Your task to perform on an android device: change your default location settings in chrome Image 0: 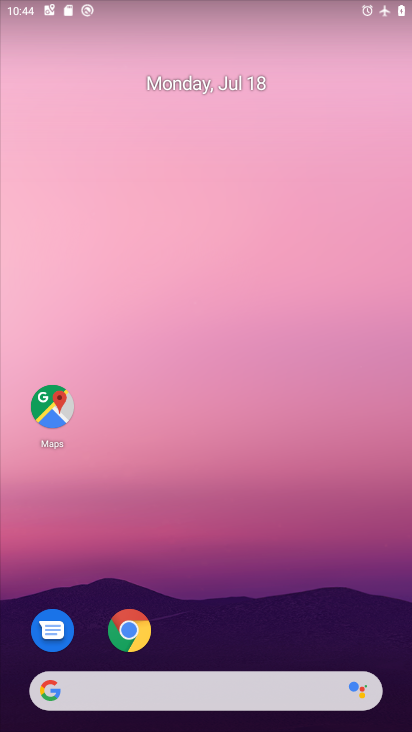
Step 0: drag from (176, 645) to (156, 189)
Your task to perform on an android device: change your default location settings in chrome Image 1: 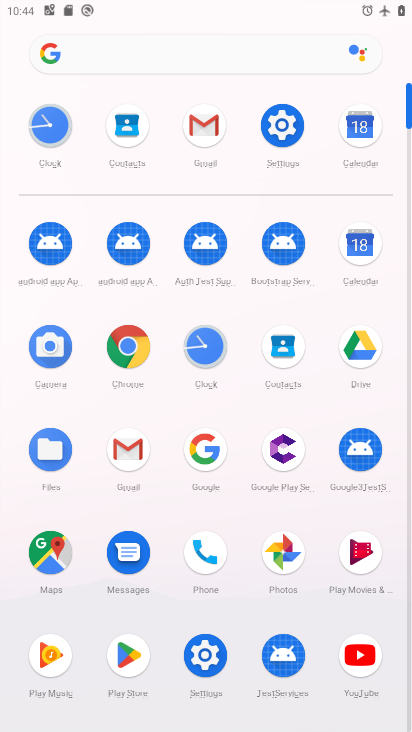
Step 1: click (118, 346)
Your task to perform on an android device: change your default location settings in chrome Image 2: 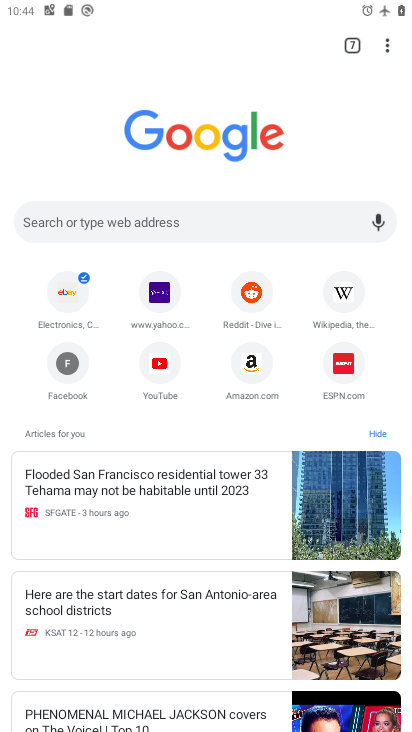
Step 2: click (392, 51)
Your task to perform on an android device: change your default location settings in chrome Image 3: 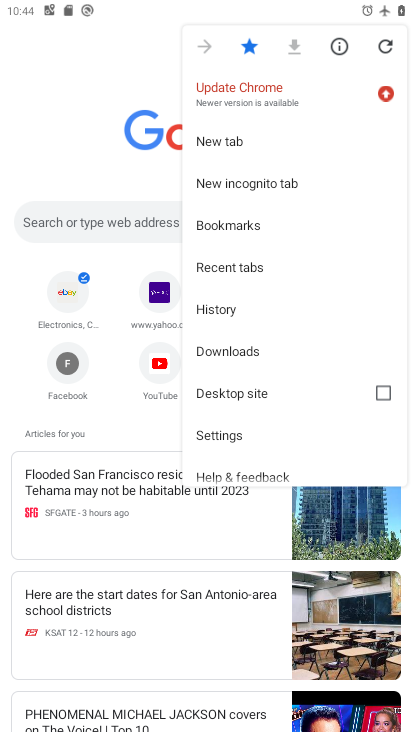
Step 3: click (243, 430)
Your task to perform on an android device: change your default location settings in chrome Image 4: 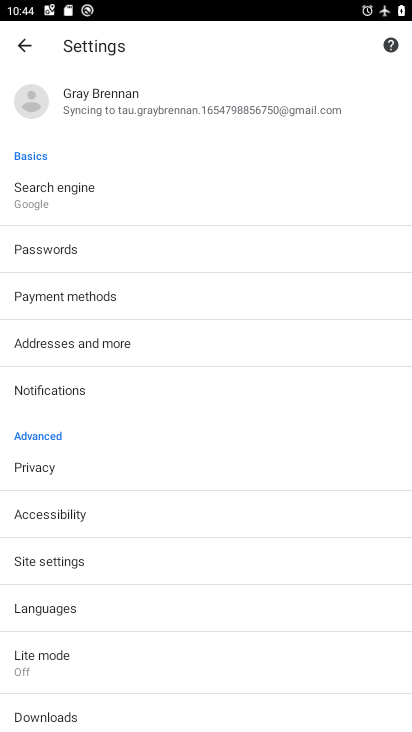
Step 4: click (75, 563)
Your task to perform on an android device: change your default location settings in chrome Image 5: 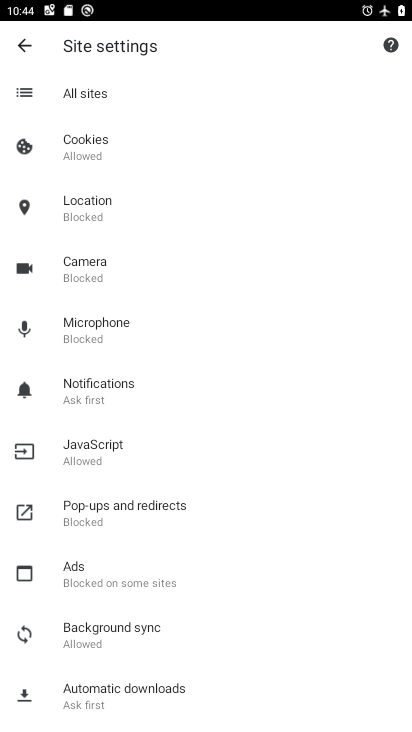
Step 5: click (136, 200)
Your task to perform on an android device: change your default location settings in chrome Image 6: 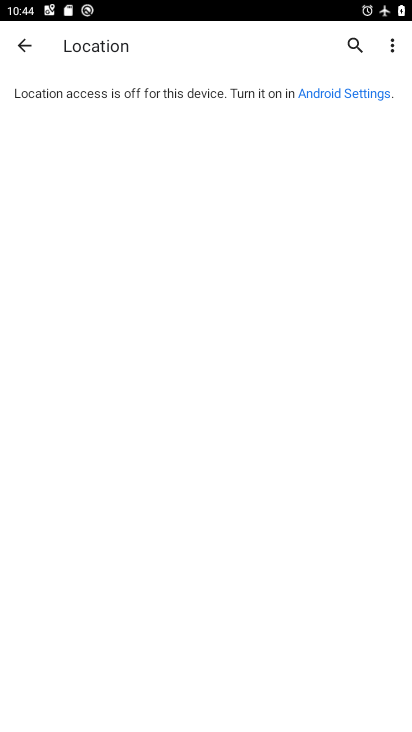
Step 6: click (338, 99)
Your task to perform on an android device: change your default location settings in chrome Image 7: 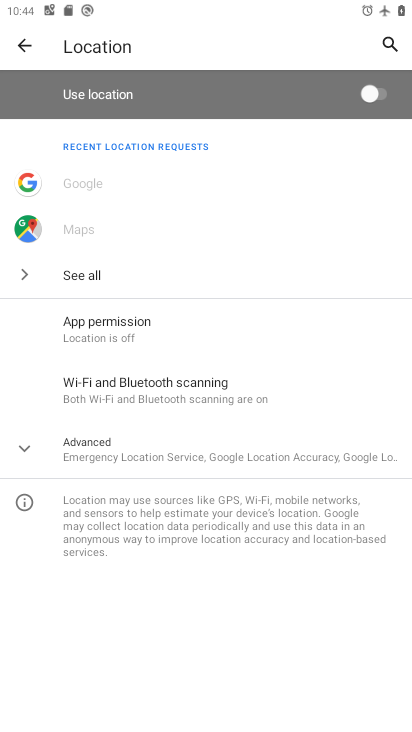
Step 7: click (376, 91)
Your task to perform on an android device: change your default location settings in chrome Image 8: 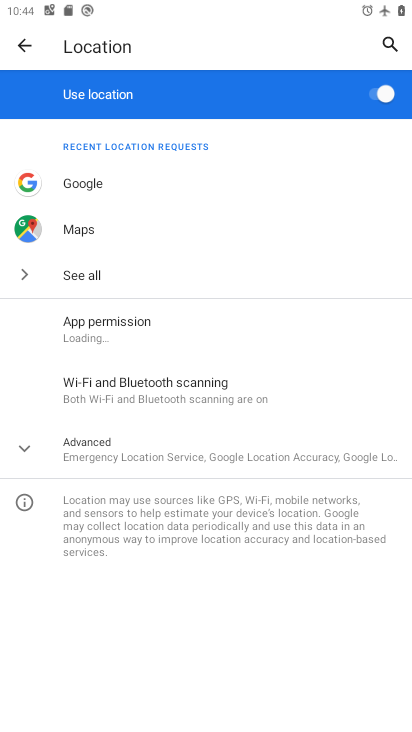
Step 8: task complete